Your task to perform on an android device: toggle translation in the chrome app Image 0: 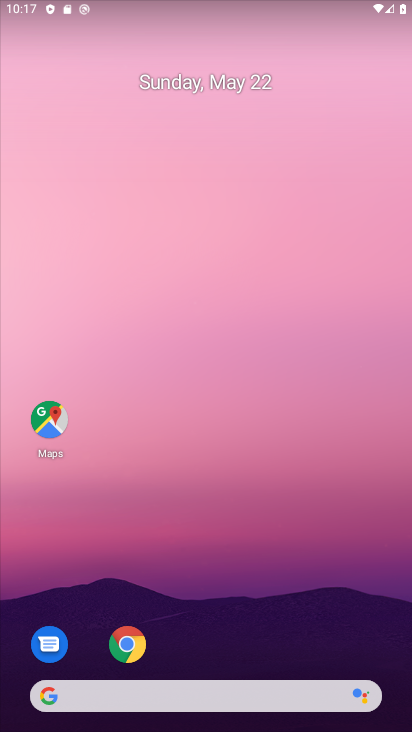
Step 0: click (128, 651)
Your task to perform on an android device: toggle translation in the chrome app Image 1: 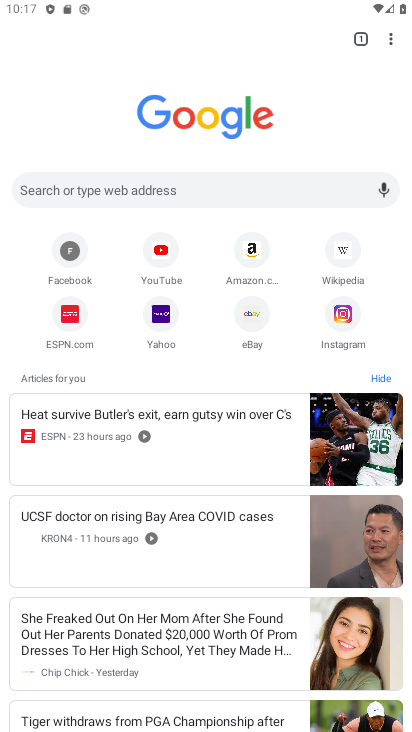
Step 1: click (396, 35)
Your task to perform on an android device: toggle translation in the chrome app Image 2: 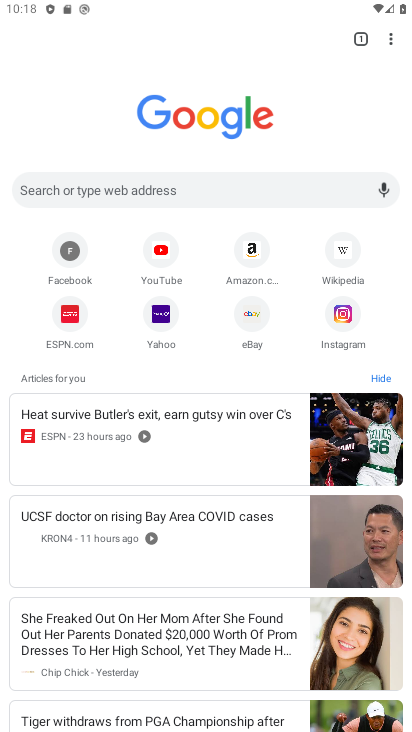
Step 2: click (388, 39)
Your task to perform on an android device: toggle translation in the chrome app Image 3: 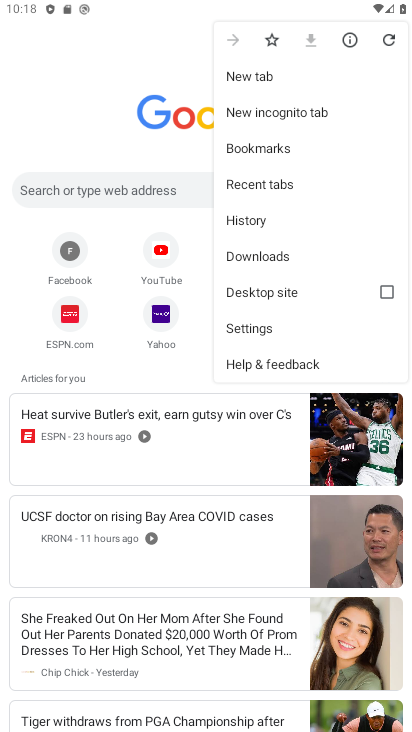
Step 3: click (238, 330)
Your task to perform on an android device: toggle translation in the chrome app Image 4: 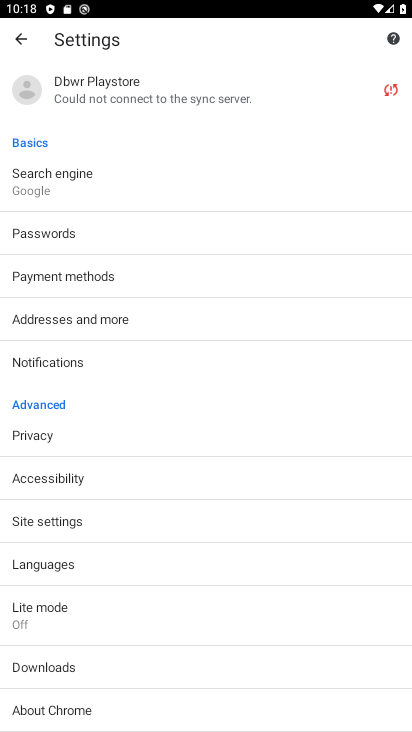
Step 4: click (43, 561)
Your task to perform on an android device: toggle translation in the chrome app Image 5: 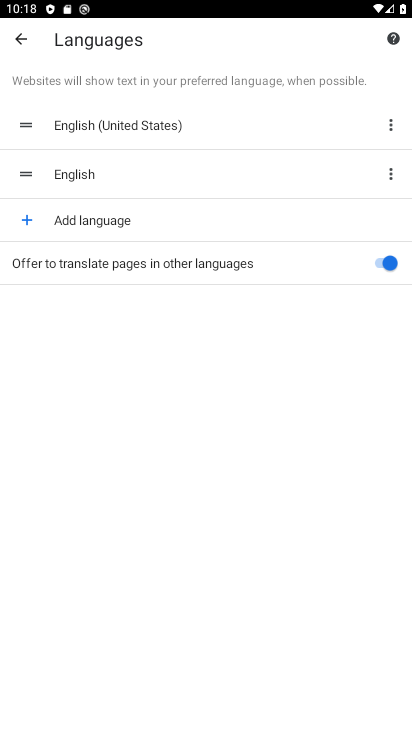
Step 5: click (379, 267)
Your task to perform on an android device: toggle translation in the chrome app Image 6: 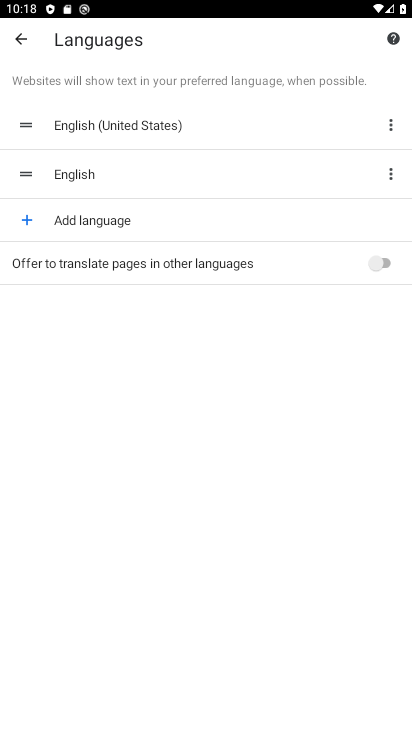
Step 6: task complete